Your task to perform on an android device: Open Reddit.com Image 0: 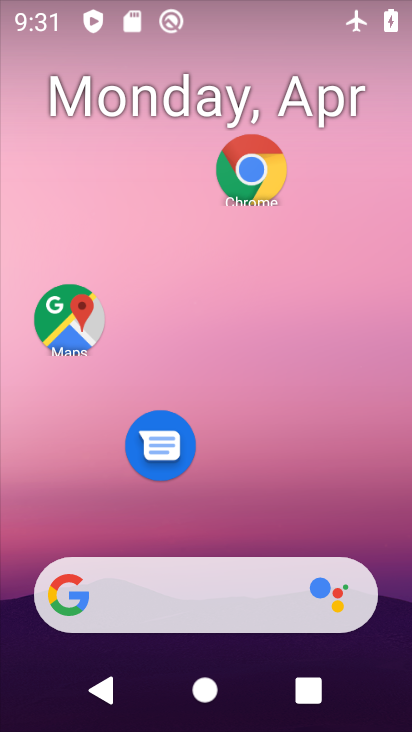
Step 0: click (215, 575)
Your task to perform on an android device: Open Reddit.com Image 1: 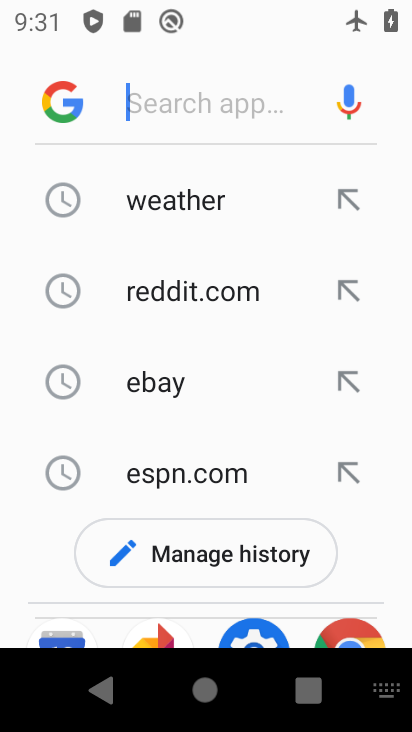
Step 1: type "Reddit.com"
Your task to perform on an android device: Open Reddit.com Image 2: 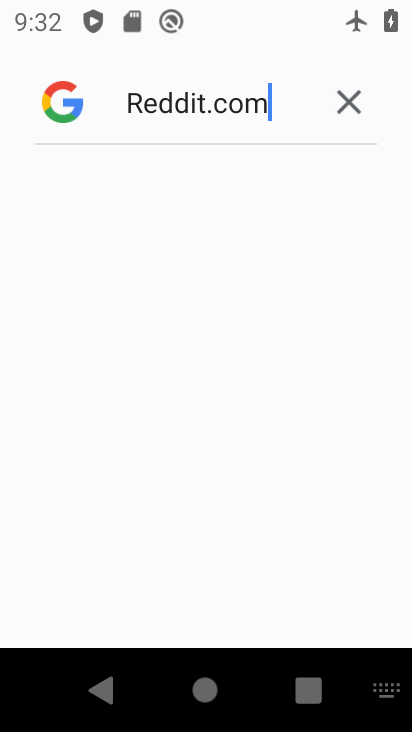
Step 2: task complete